Your task to perform on an android device: add a contact in the contacts app Image 0: 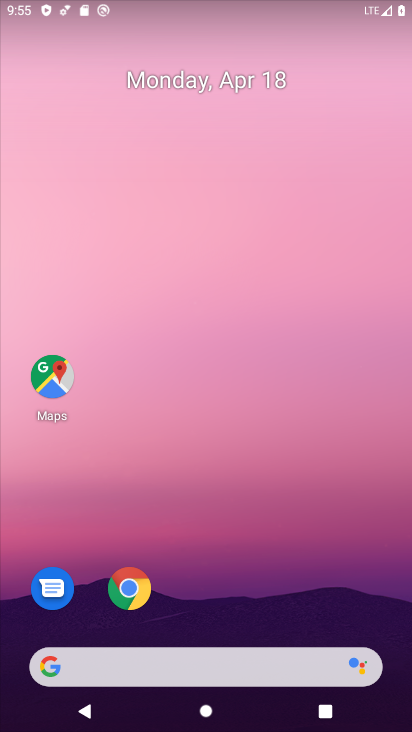
Step 0: drag from (379, 623) to (303, 160)
Your task to perform on an android device: add a contact in the contacts app Image 1: 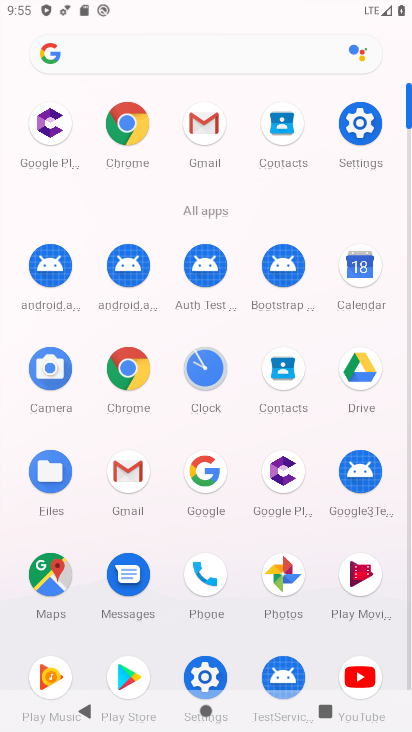
Step 1: click (283, 370)
Your task to perform on an android device: add a contact in the contacts app Image 2: 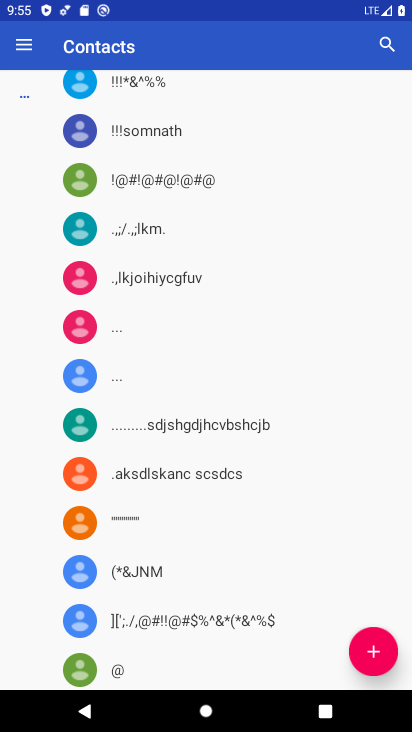
Step 2: click (370, 648)
Your task to perform on an android device: add a contact in the contacts app Image 3: 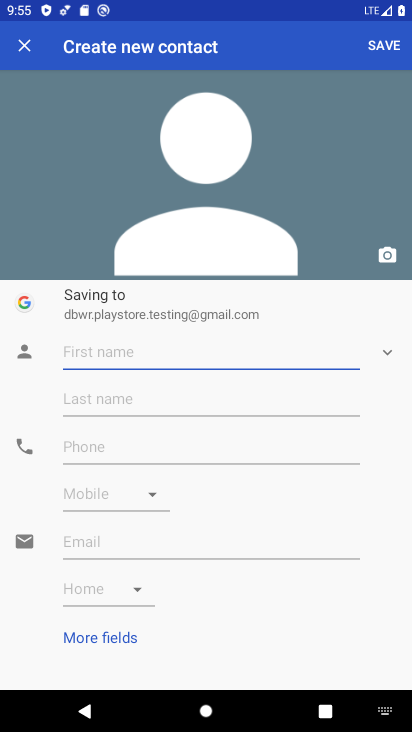
Step 3: type "sfgsshgg"
Your task to perform on an android device: add a contact in the contacts app Image 4: 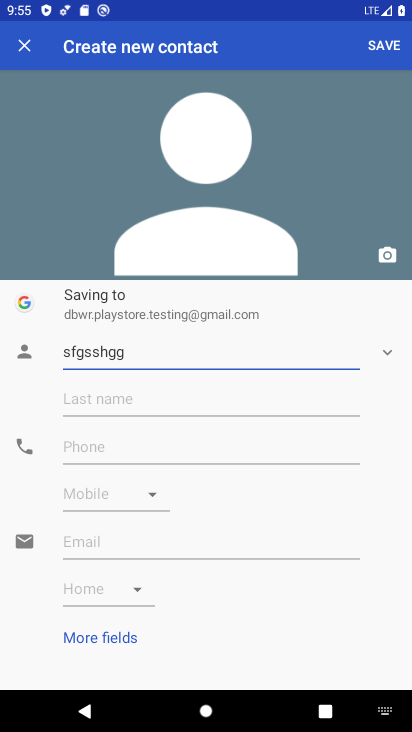
Step 4: click (74, 457)
Your task to perform on an android device: add a contact in the contacts app Image 5: 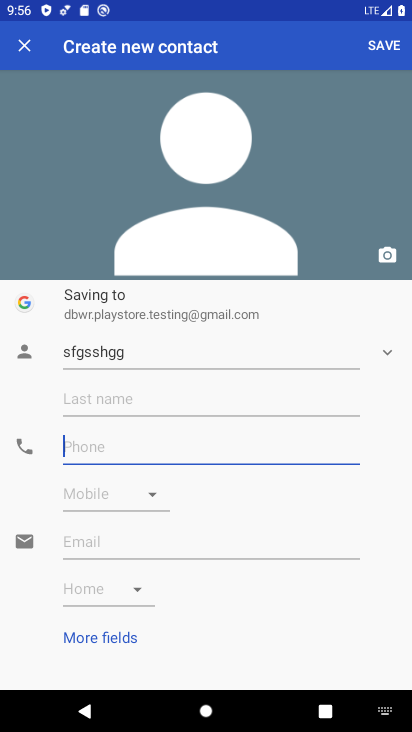
Step 5: type "09900654312"
Your task to perform on an android device: add a contact in the contacts app Image 6: 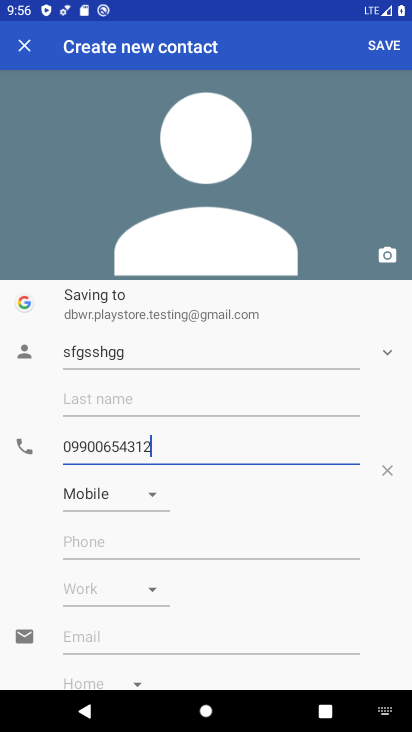
Step 6: click (145, 494)
Your task to perform on an android device: add a contact in the contacts app Image 7: 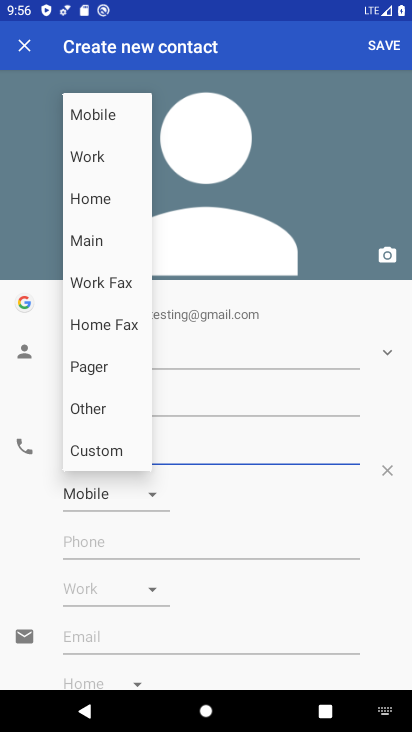
Step 7: click (82, 150)
Your task to perform on an android device: add a contact in the contacts app Image 8: 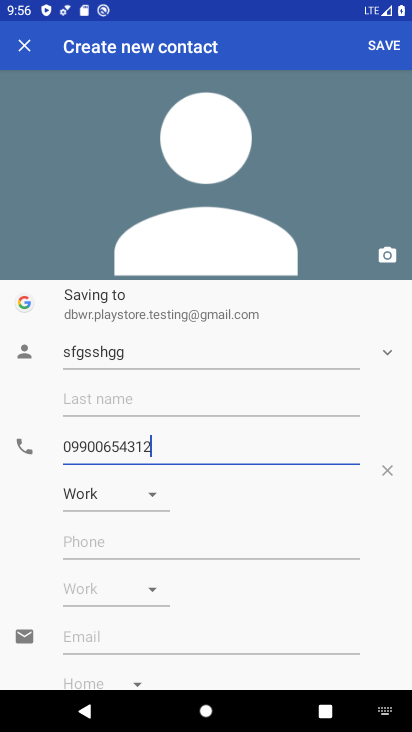
Step 8: click (378, 45)
Your task to perform on an android device: add a contact in the contacts app Image 9: 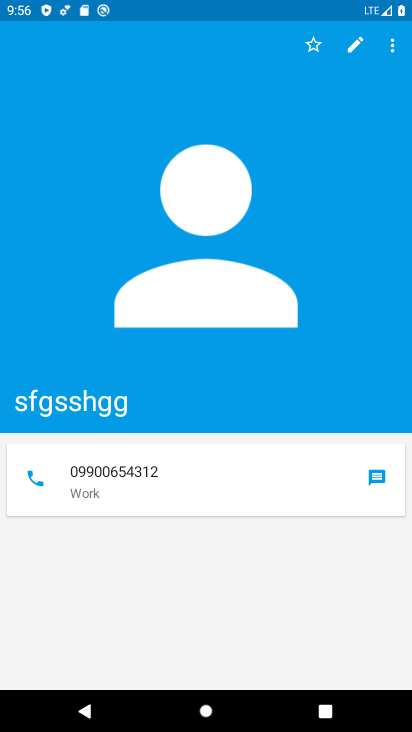
Step 9: task complete